Your task to perform on an android device: Open Youtube and go to "Your channel" Image 0: 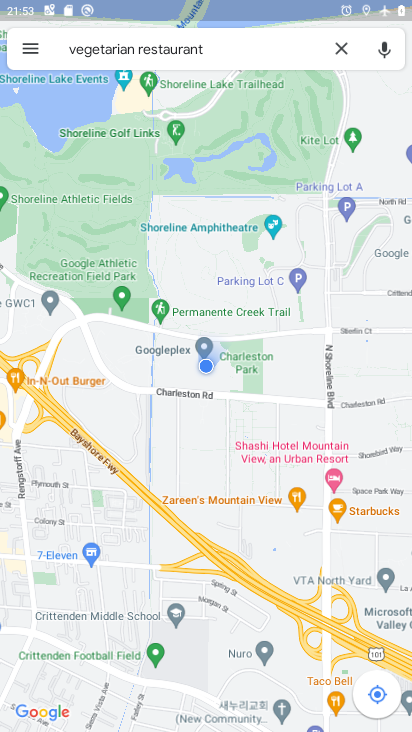
Step 0: press home button
Your task to perform on an android device: Open Youtube and go to "Your channel" Image 1: 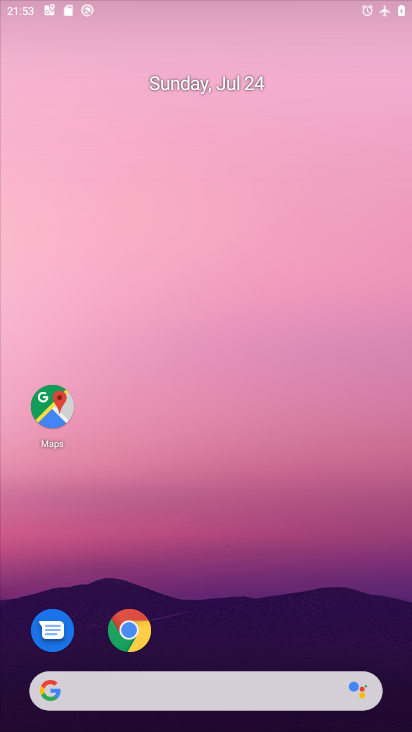
Step 1: drag from (318, 640) to (296, 148)
Your task to perform on an android device: Open Youtube and go to "Your channel" Image 2: 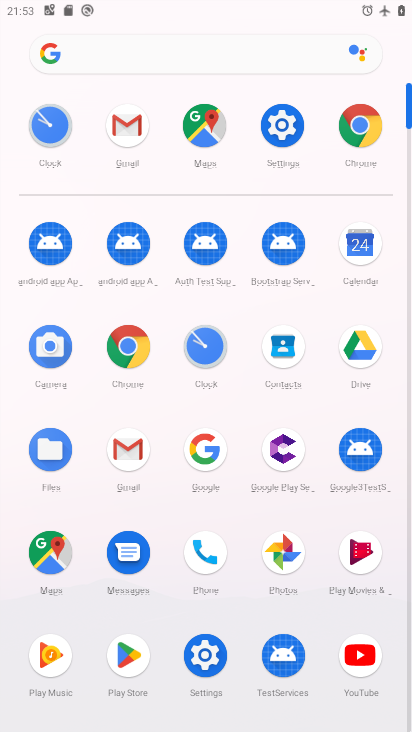
Step 2: click (367, 668)
Your task to perform on an android device: Open Youtube and go to "Your channel" Image 3: 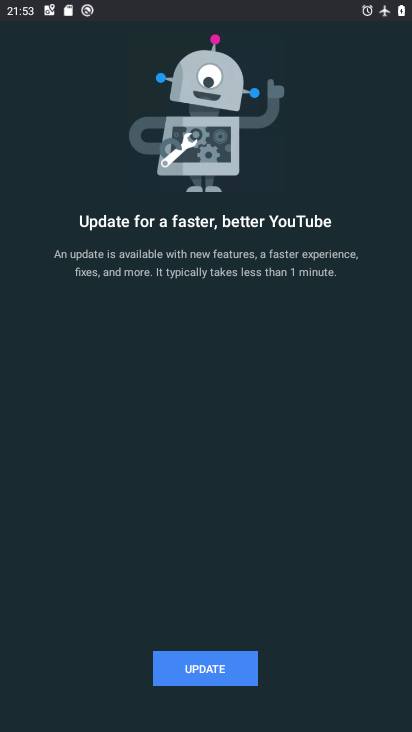
Step 3: task complete